Your task to perform on an android device: turn on showing notifications on the lock screen Image 0: 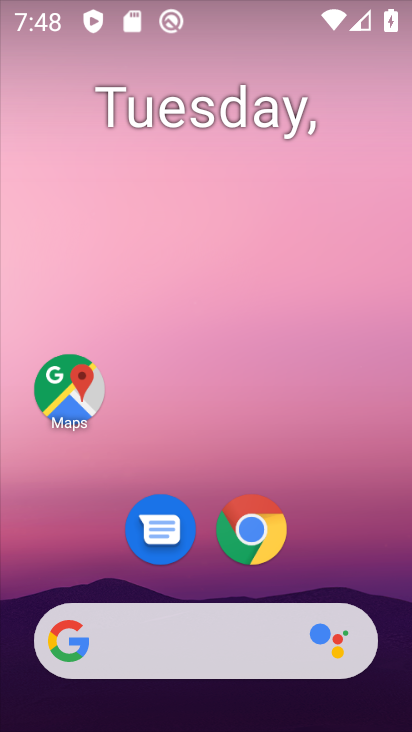
Step 0: press home button
Your task to perform on an android device: turn on showing notifications on the lock screen Image 1: 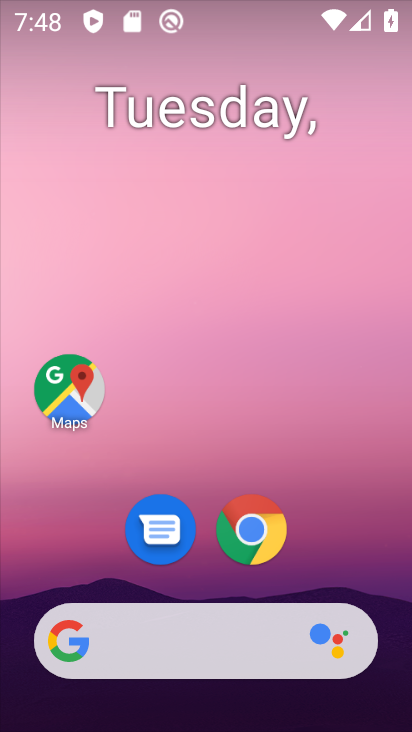
Step 1: drag from (181, 608) to (355, 52)
Your task to perform on an android device: turn on showing notifications on the lock screen Image 2: 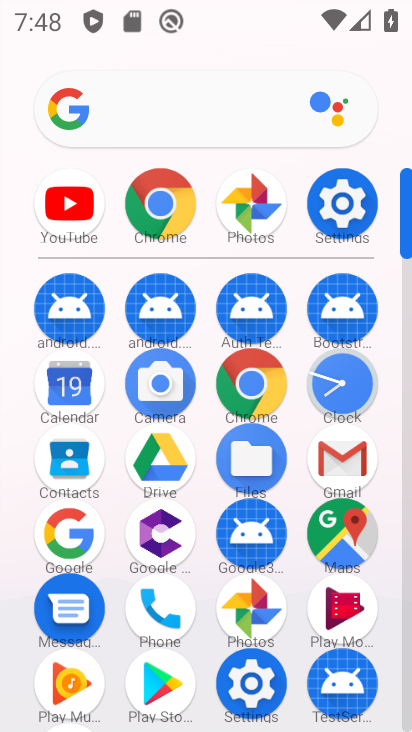
Step 2: click (335, 211)
Your task to perform on an android device: turn on showing notifications on the lock screen Image 3: 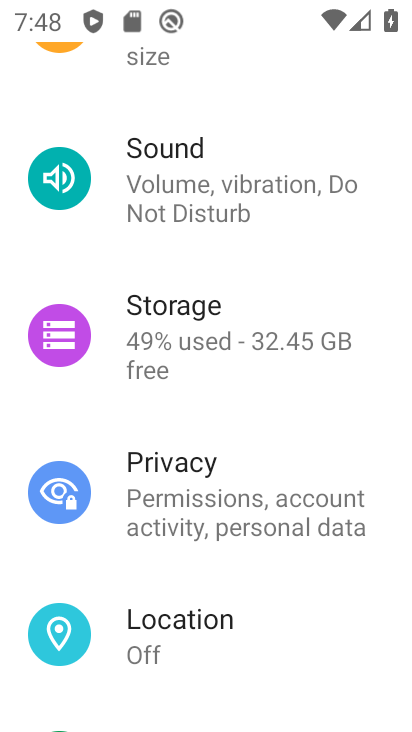
Step 3: drag from (296, 131) to (251, 609)
Your task to perform on an android device: turn on showing notifications on the lock screen Image 4: 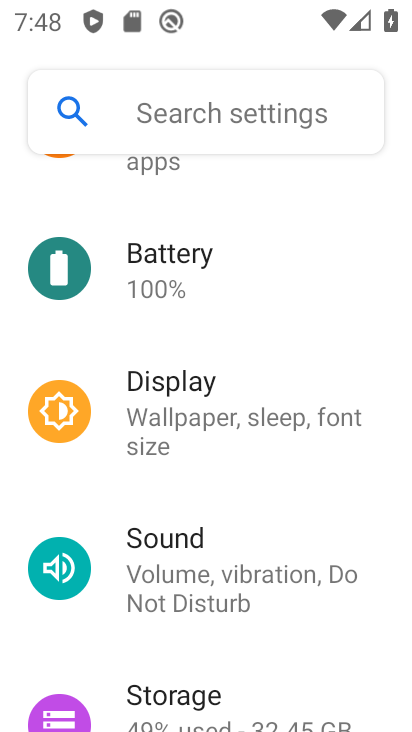
Step 4: drag from (292, 280) to (272, 556)
Your task to perform on an android device: turn on showing notifications on the lock screen Image 5: 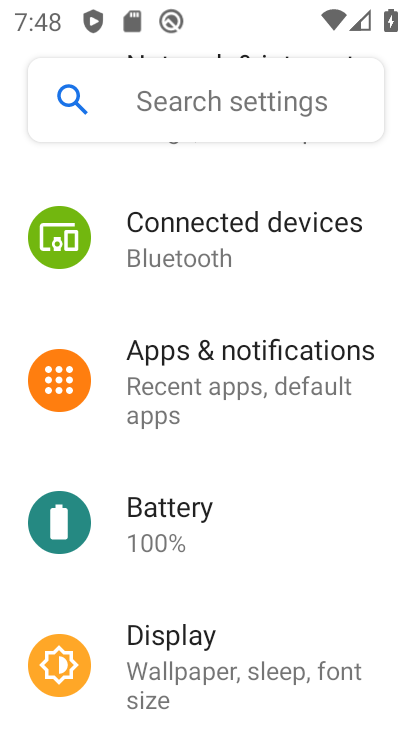
Step 5: click (257, 352)
Your task to perform on an android device: turn on showing notifications on the lock screen Image 6: 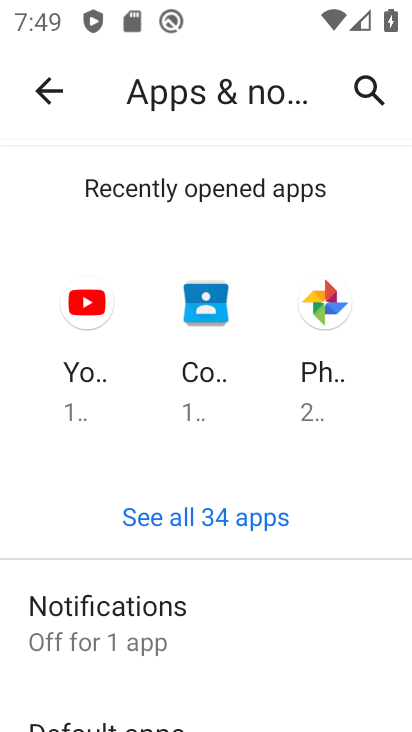
Step 6: click (146, 618)
Your task to perform on an android device: turn on showing notifications on the lock screen Image 7: 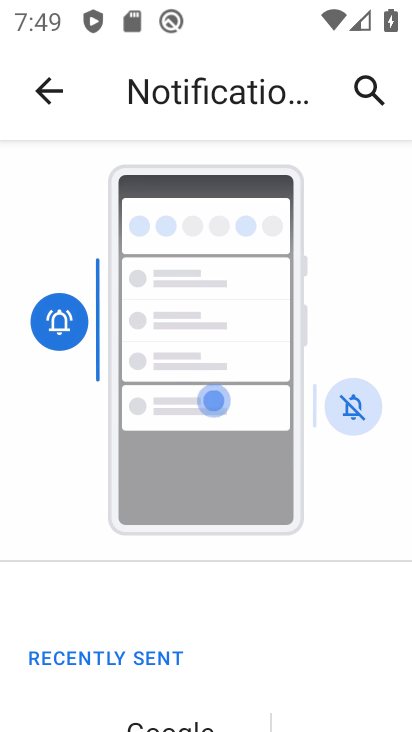
Step 7: drag from (153, 683) to (293, 320)
Your task to perform on an android device: turn on showing notifications on the lock screen Image 8: 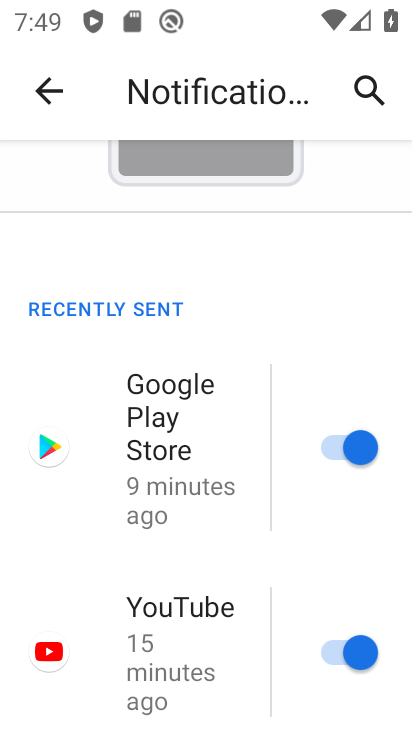
Step 8: drag from (225, 620) to (409, 120)
Your task to perform on an android device: turn on showing notifications on the lock screen Image 9: 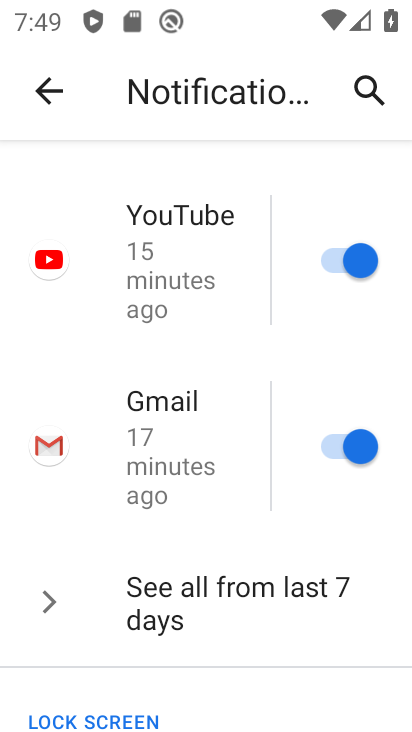
Step 9: drag from (115, 671) to (261, 260)
Your task to perform on an android device: turn on showing notifications on the lock screen Image 10: 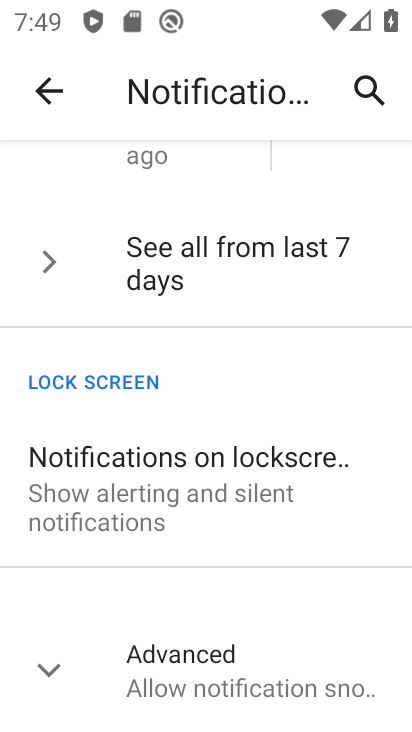
Step 10: click (222, 480)
Your task to perform on an android device: turn on showing notifications on the lock screen Image 11: 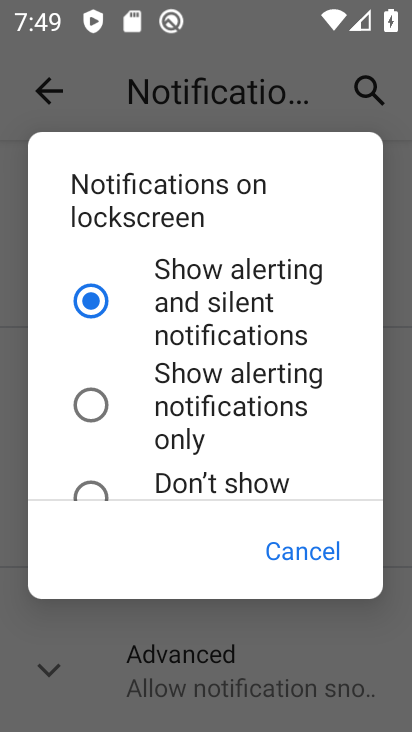
Step 11: task complete